Your task to perform on an android device: Go to Maps Image 0: 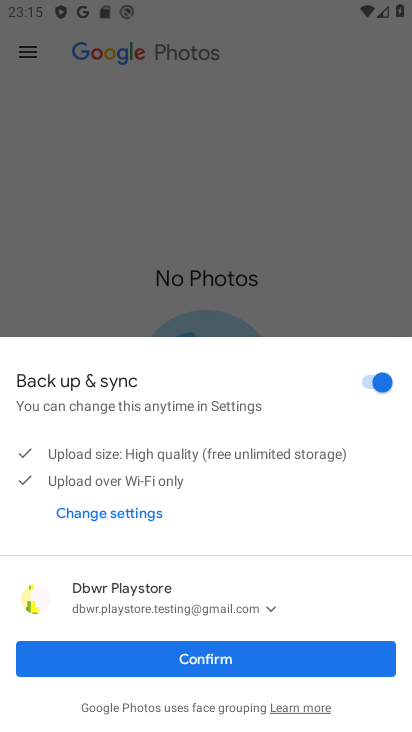
Step 0: press home button
Your task to perform on an android device: Go to Maps Image 1: 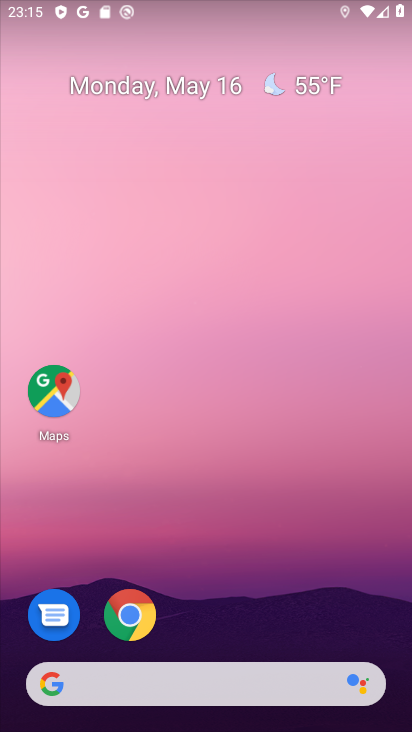
Step 1: click (56, 394)
Your task to perform on an android device: Go to Maps Image 2: 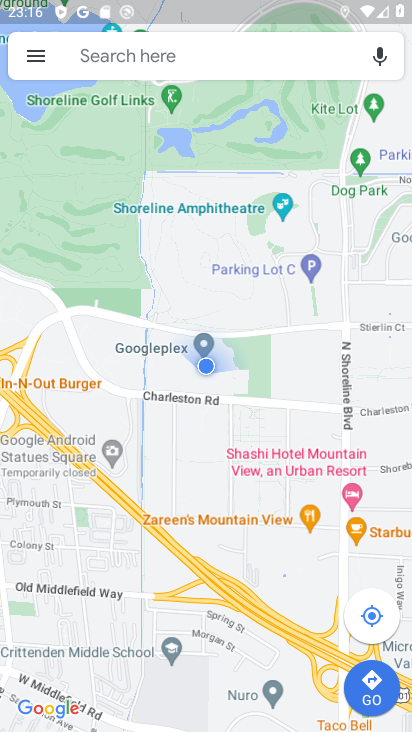
Step 2: task complete